Your task to perform on an android device: What's on my calendar tomorrow? Image 0: 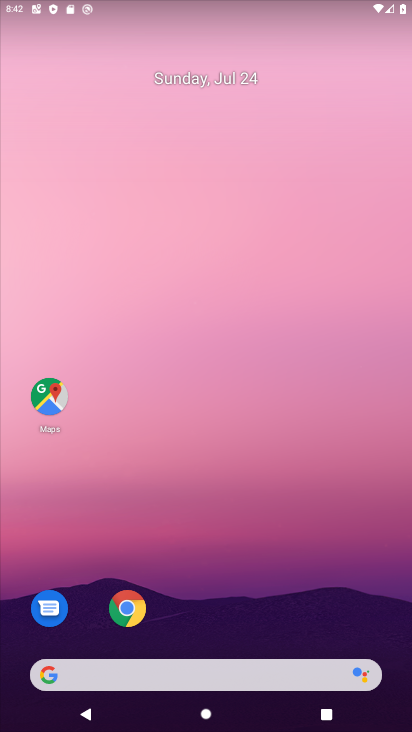
Step 0: drag from (211, 645) to (243, 0)
Your task to perform on an android device: What's on my calendar tomorrow? Image 1: 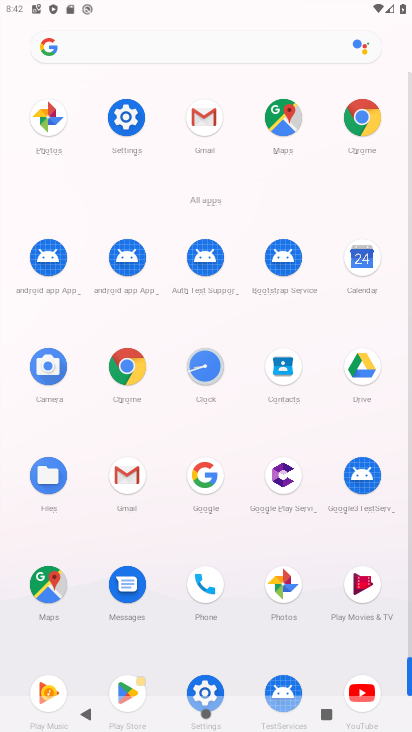
Step 1: click (363, 272)
Your task to perform on an android device: What's on my calendar tomorrow? Image 2: 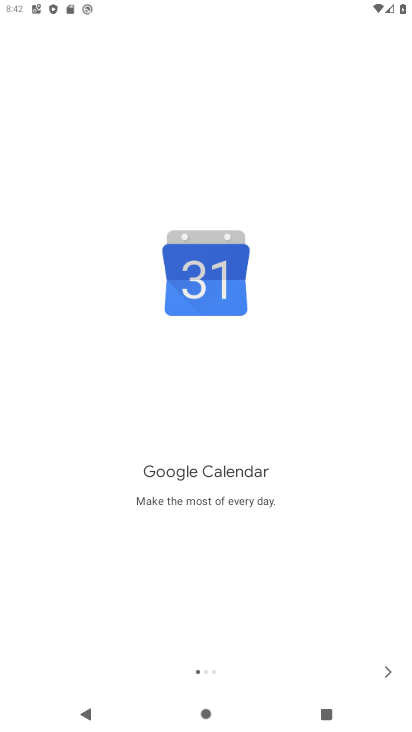
Step 2: click (389, 665)
Your task to perform on an android device: What's on my calendar tomorrow? Image 3: 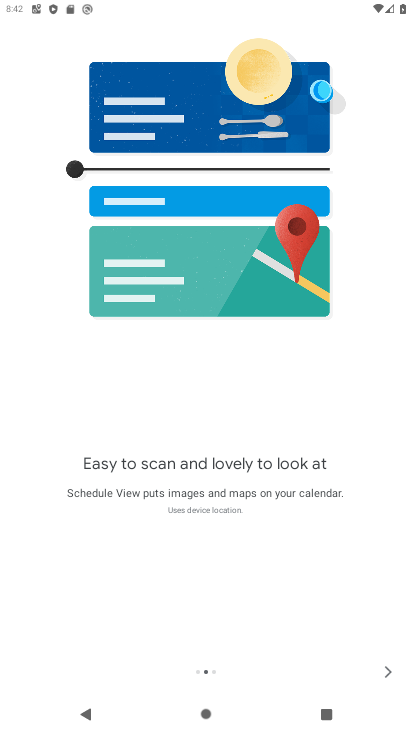
Step 3: click (387, 664)
Your task to perform on an android device: What's on my calendar tomorrow? Image 4: 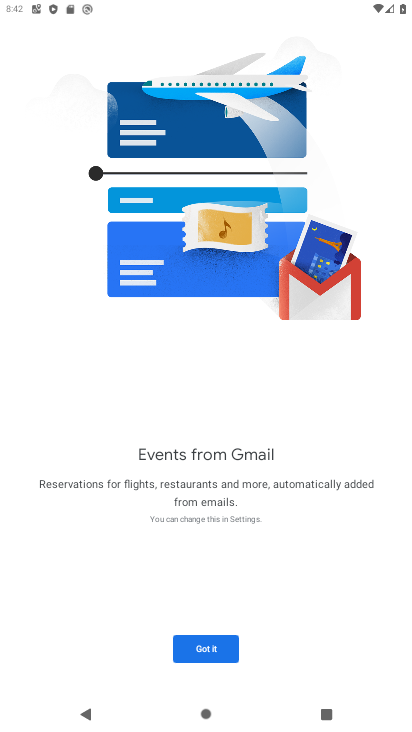
Step 4: click (201, 650)
Your task to perform on an android device: What's on my calendar tomorrow? Image 5: 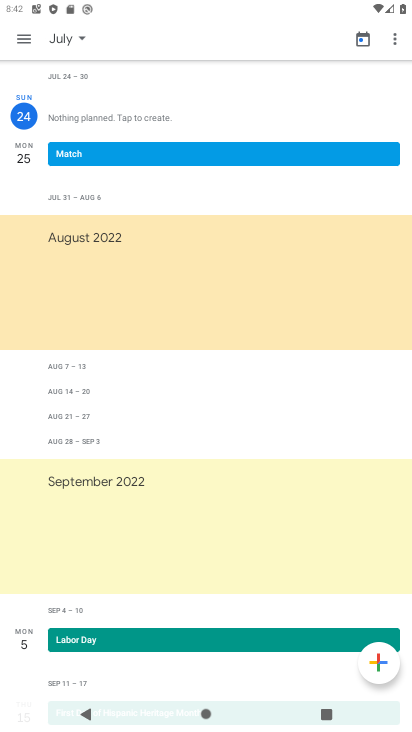
Step 5: click (27, 33)
Your task to perform on an android device: What's on my calendar tomorrow? Image 6: 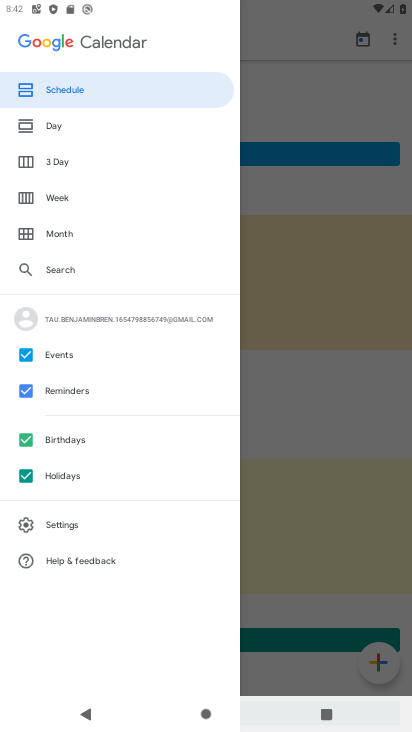
Step 6: click (62, 169)
Your task to perform on an android device: What's on my calendar tomorrow? Image 7: 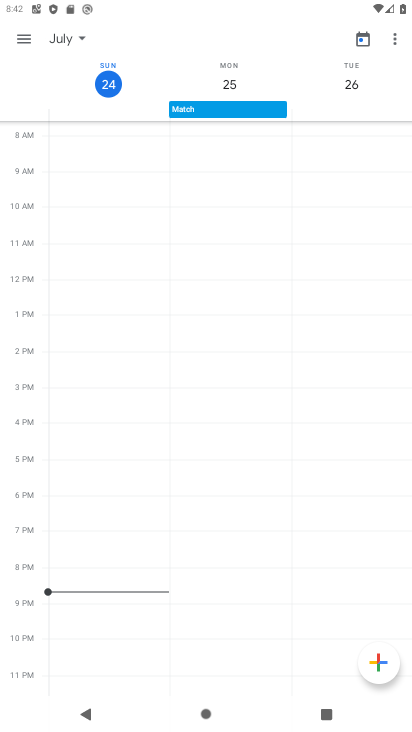
Step 7: task complete